Your task to perform on an android device: Go to Google Image 0: 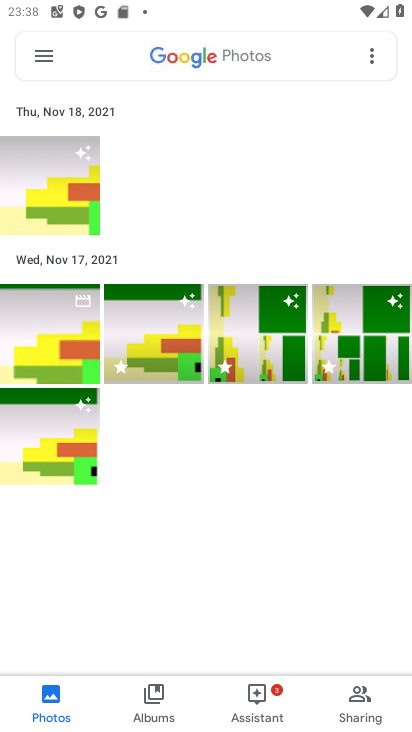
Step 0: press home button
Your task to perform on an android device: Go to Google Image 1: 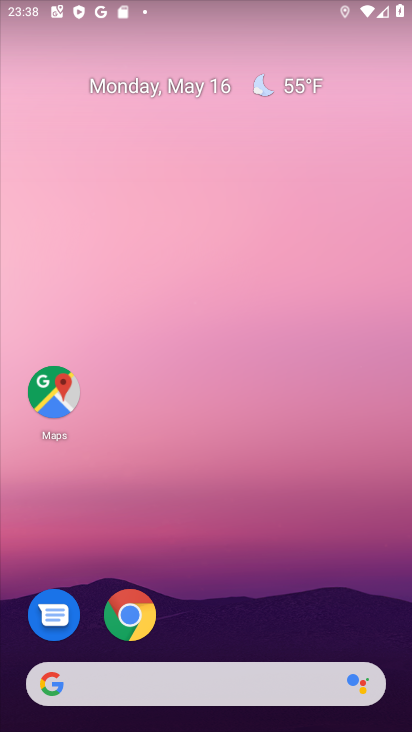
Step 1: drag from (273, 646) to (240, 70)
Your task to perform on an android device: Go to Google Image 2: 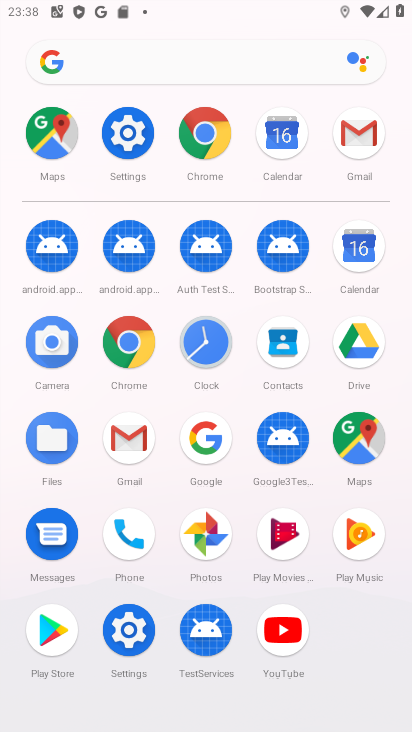
Step 2: click (198, 439)
Your task to perform on an android device: Go to Google Image 3: 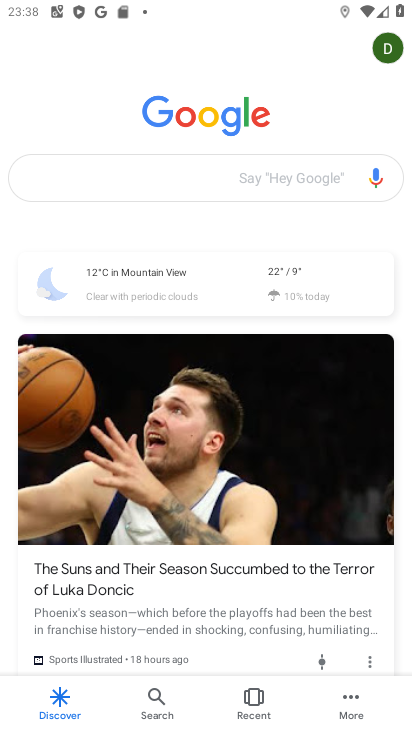
Step 3: task complete